Your task to perform on an android device: turn pop-ups off in chrome Image 0: 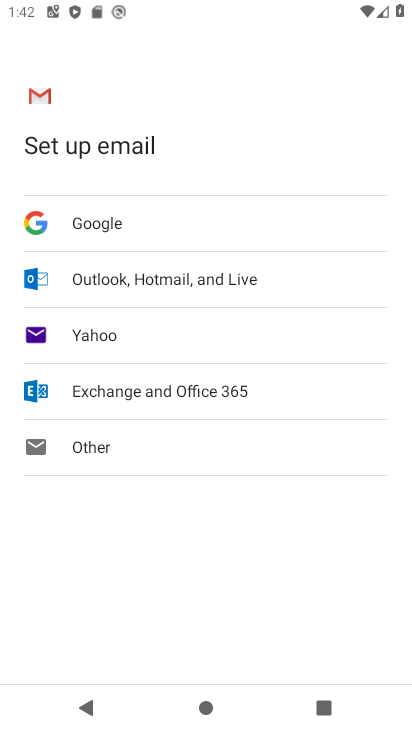
Step 0: press home button
Your task to perform on an android device: turn pop-ups off in chrome Image 1: 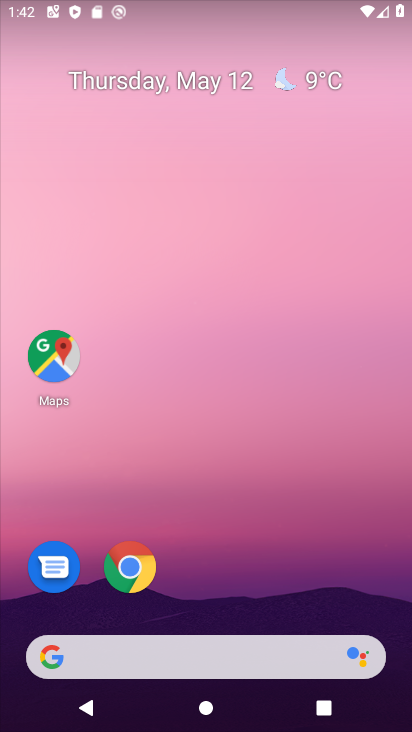
Step 1: click (126, 564)
Your task to perform on an android device: turn pop-ups off in chrome Image 2: 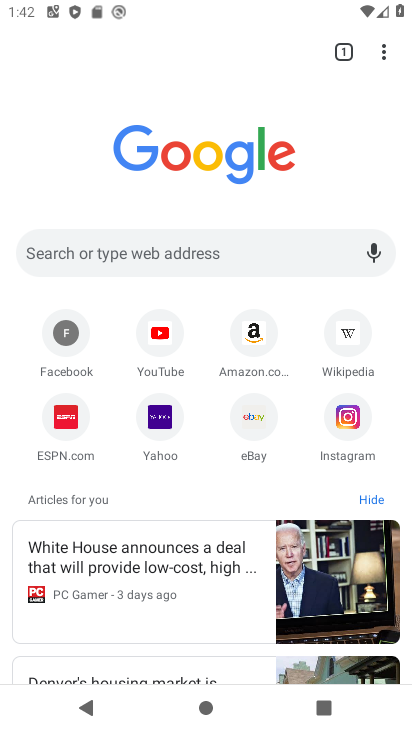
Step 2: click (378, 50)
Your task to perform on an android device: turn pop-ups off in chrome Image 3: 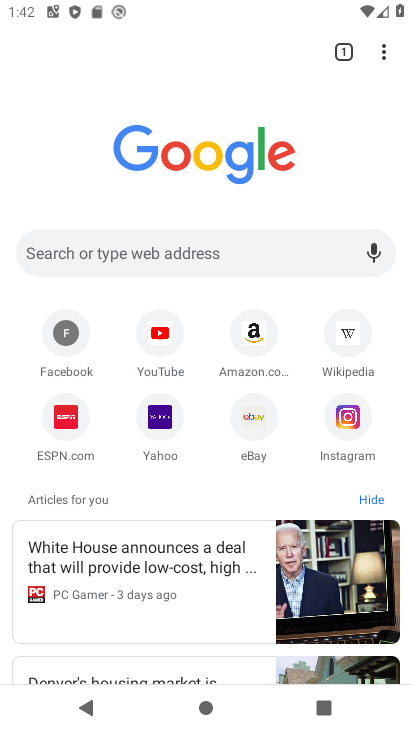
Step 3: click (381, 50)
Your task to perform on an android device: turn pop-ups off in chrome Image 4: 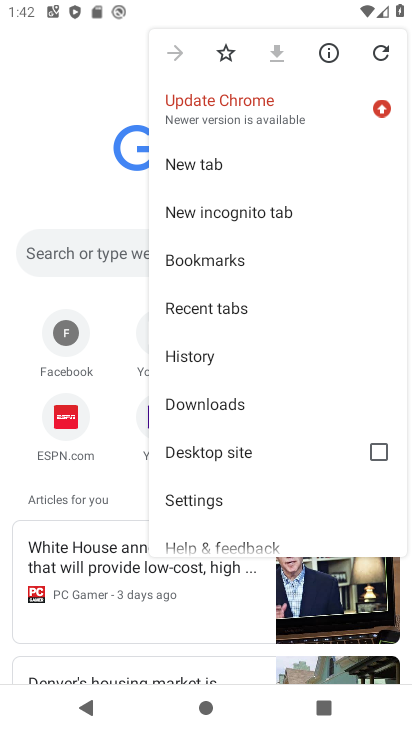
Step 4: click (233, 493)
Your task to perform on an android device: turn pop-ups off in chrome Image 5: 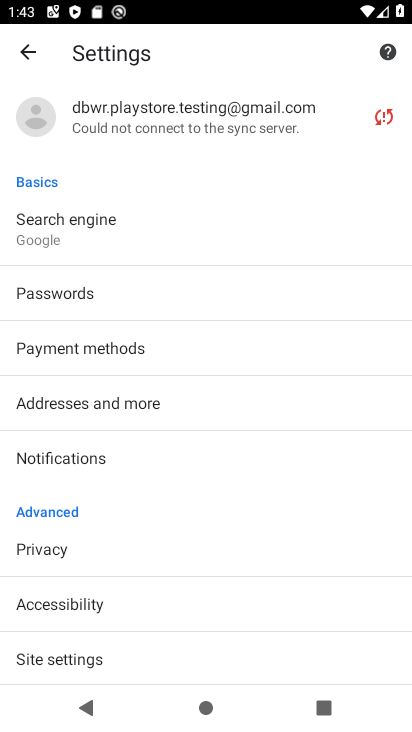
Step 5: drag from (163, 643) to (177, 398)
Your task to perform on an android device: turn pop-ups off in chrome Image 6: 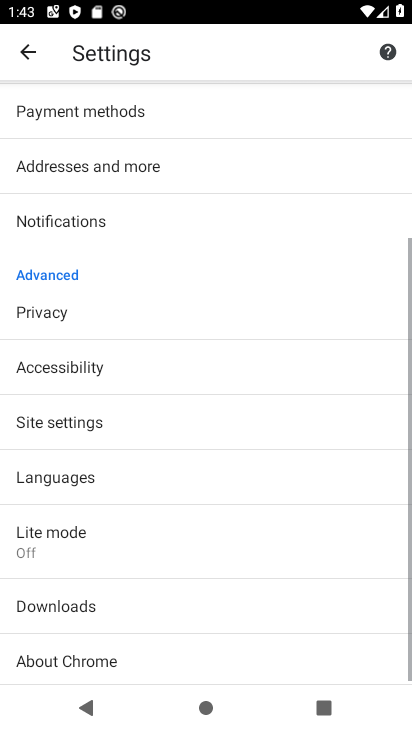
Step 6: click (180, 208)
Your task to perform on an android device: turn pop-ups off in chrome Image 7: 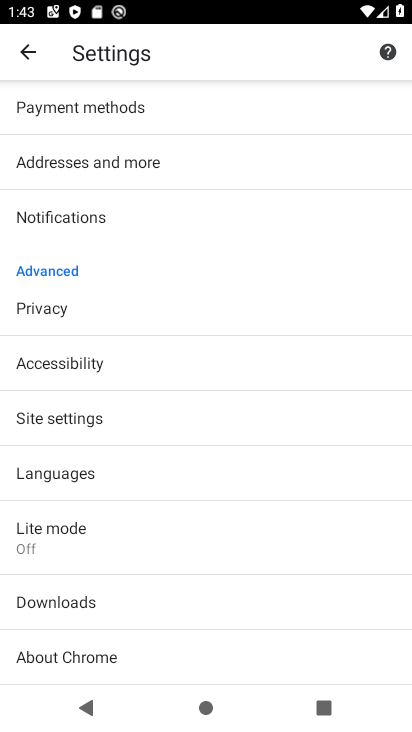
Step 7: click (117, 422)
Your task to perform on an android device: turn pop-ups off in chrome Image 8: 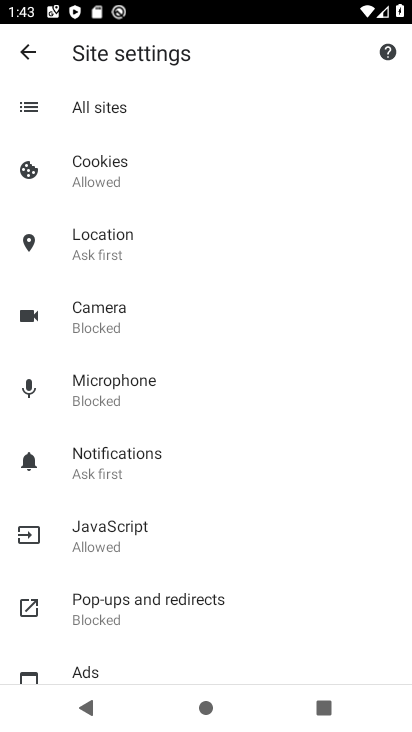
Step 8: drag from (207, 531) to (202, 302)
Your task to perform on an android device: turn pop-ups off in chrome Image 9: 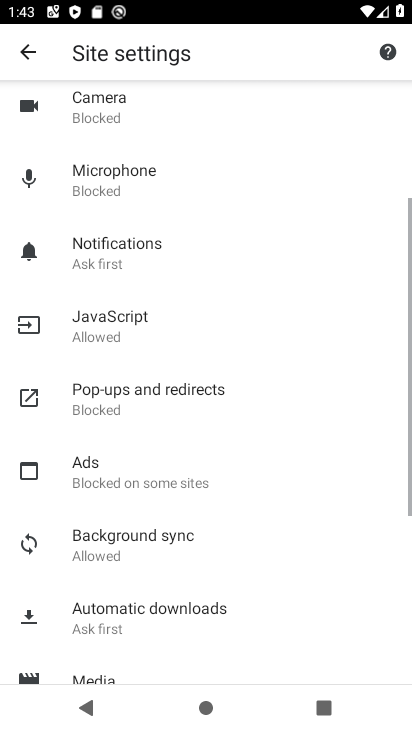
Step 9: click (202, 260)
Your task to perform on an android device: turn pop-ups off in chrome Image 10: 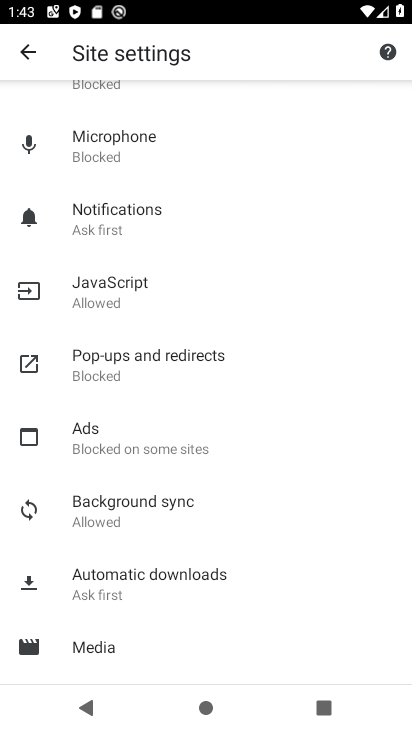
Step 10: click (159, 364)
Your task to perform on an android device: turn pop-ups off in chrome Image 11: 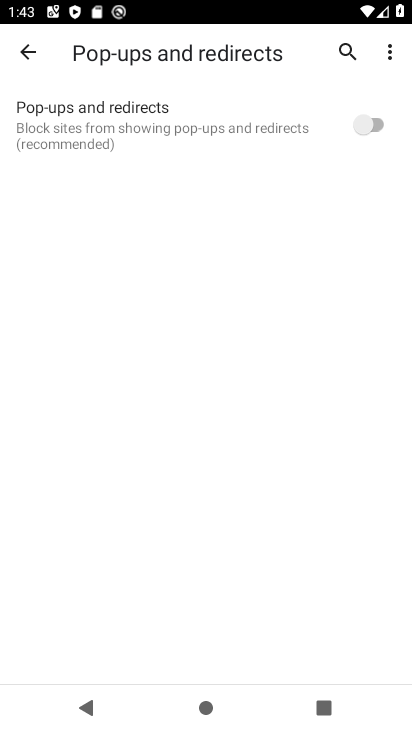
Step 11: task complete